Your task to perform on an android device: Open calendar and show me the first week of next month Image 0: 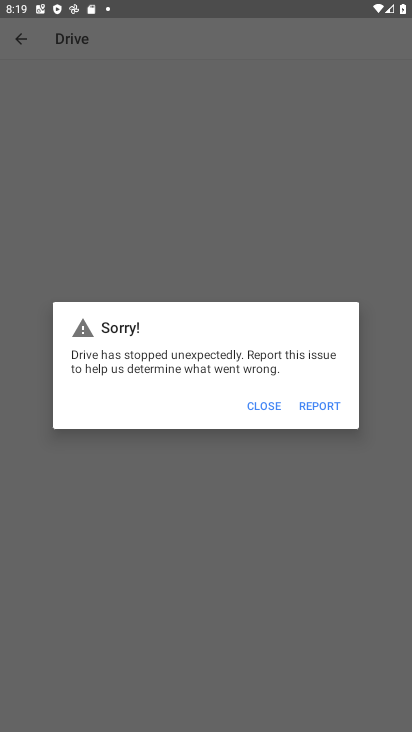
Step 0: press home button
Your task to perform on an android device: Open calendar and show me the first week of next month Image 1: 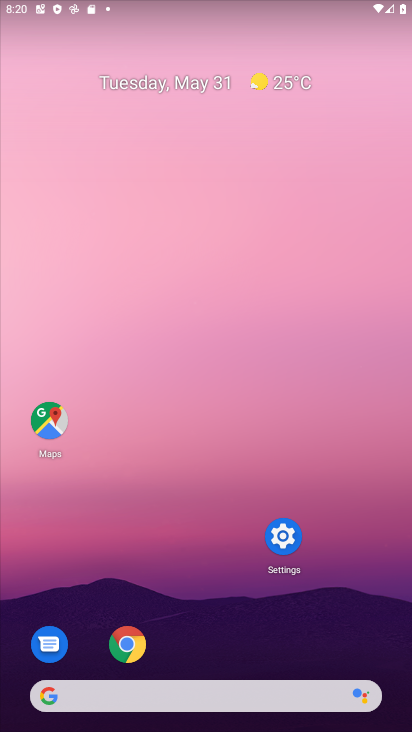
Step 1: drag from (264, 723) to (287, 66)
Your task to perform on an android device: Open calendar and show me the first week of next month Image 2: 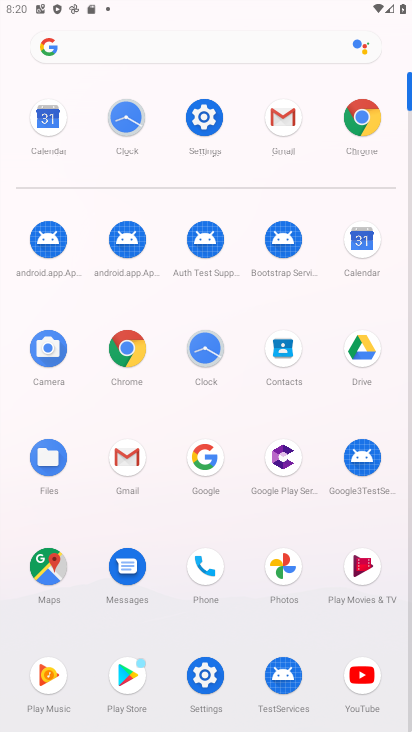
Step 2: click (364, 228)
Your task to perform on an android device: Open calendar and show me the first week of next month Image 3: 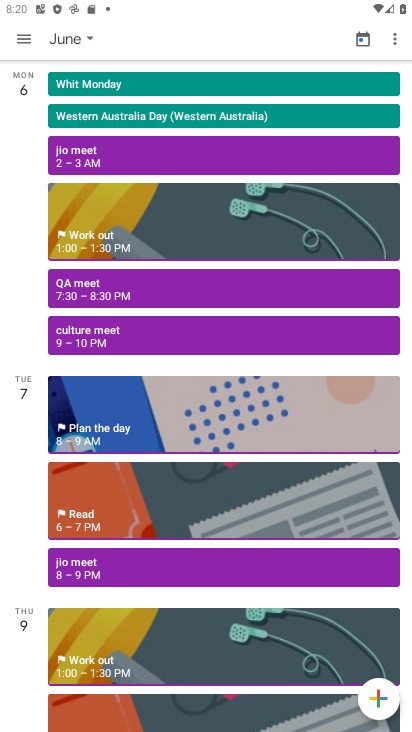
Step 3: click (24, 44)
Your task to perform on an android device: Open calendar and show me the first week of next month Image 4: 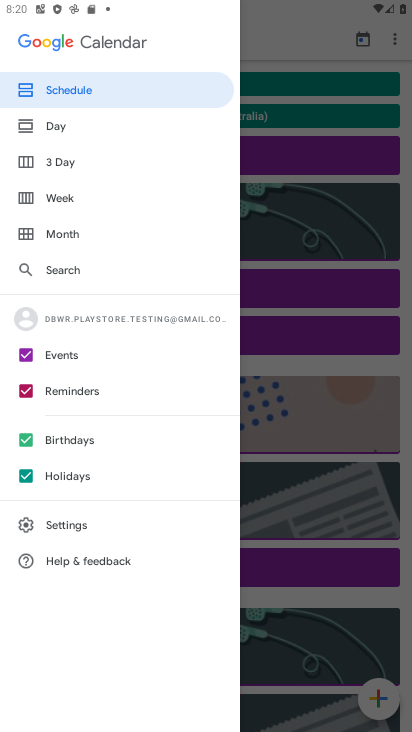
Step 4: click (72, 228)
Your task to perform on an android device: Open calendar and show me the first week of next month Image 5: 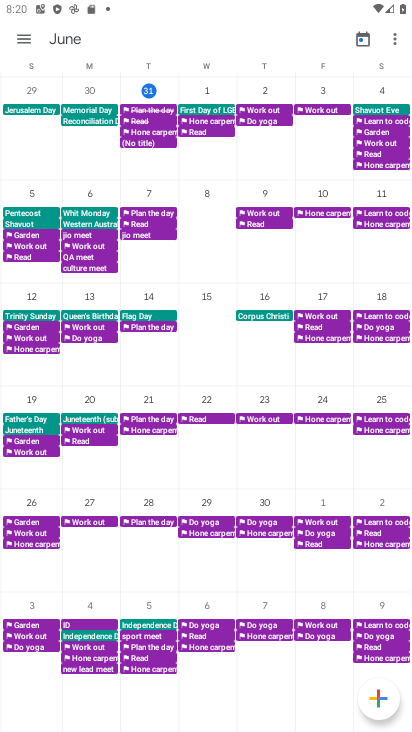
Step 5: click (72, 206)
Your task to perform on an android device: Open calendar and show me the first week of next month Image 6: 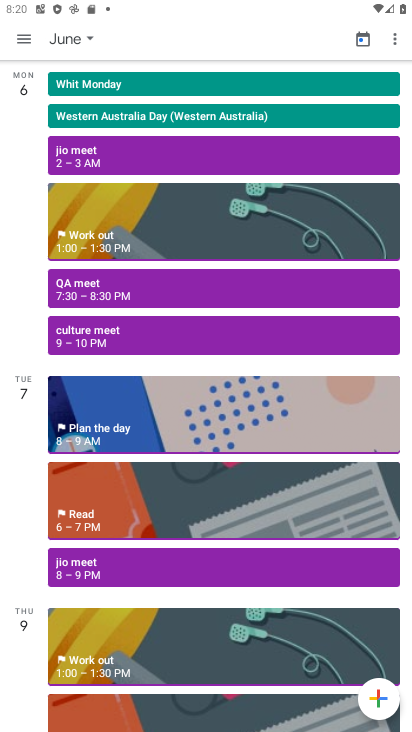
Step 6: task complete